Your task to perform on an android device: Open internet settings Image 0: 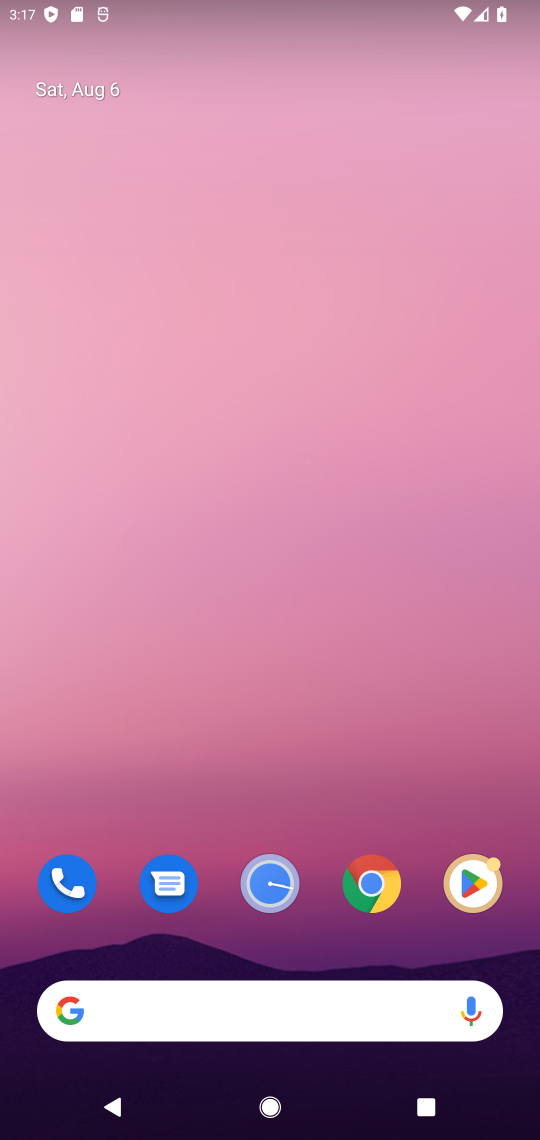
Step 0: drag from (321, 825) to (389, 6)
Your task to perform on an android device: Open internet settings Image 1: 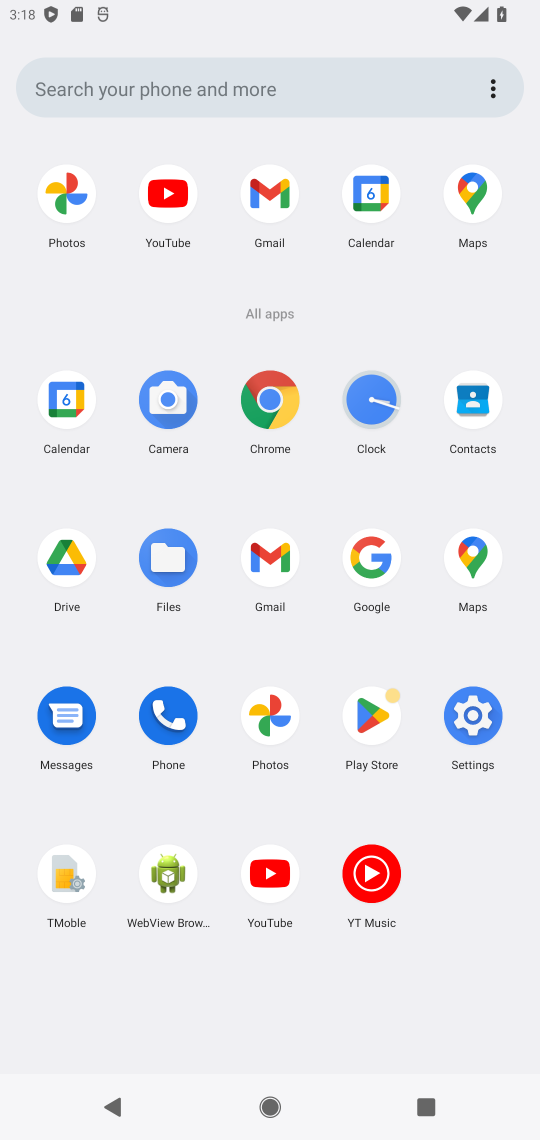
Step 1: click (455, 758)
Your task to perform on an android device: Open internet settings Image 2: 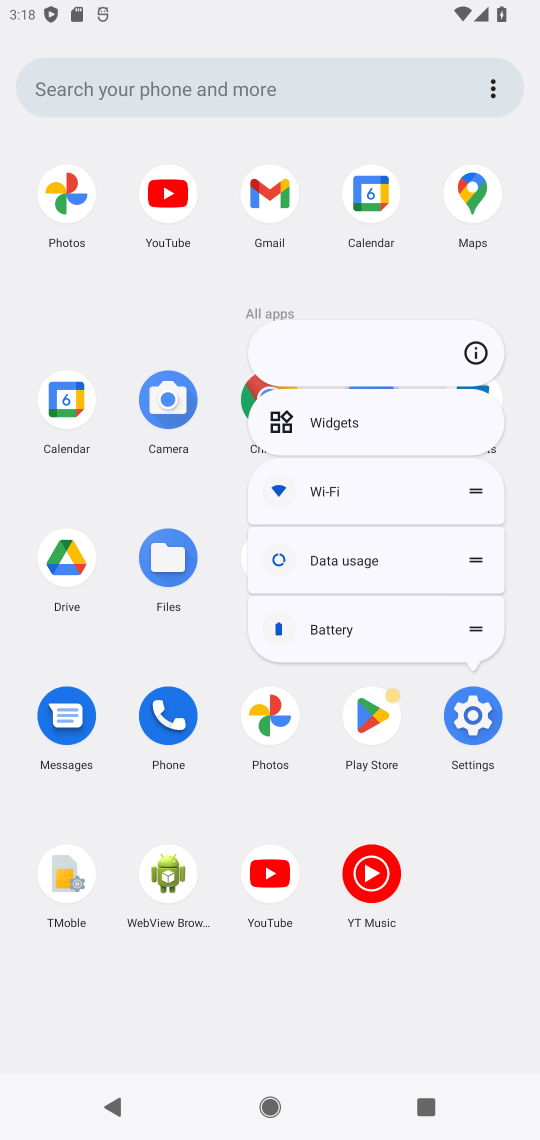
Step 2: click (473, 744)
Your task to perform on an android device: Open internet settings Image 3: 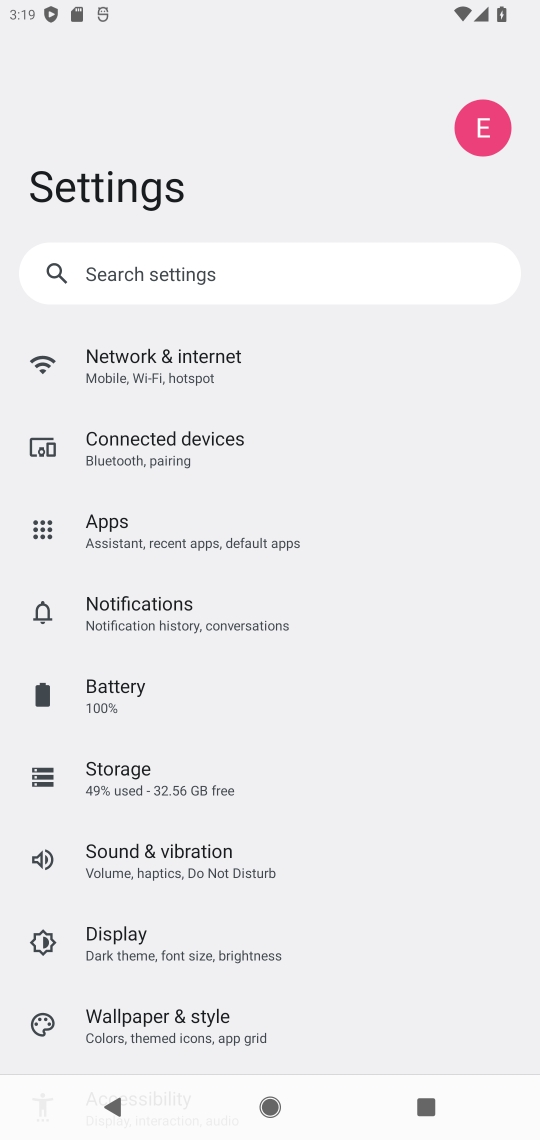
Step 3: click (205, 382)
Your task to perform on an android device: Open internet settings Image 4: 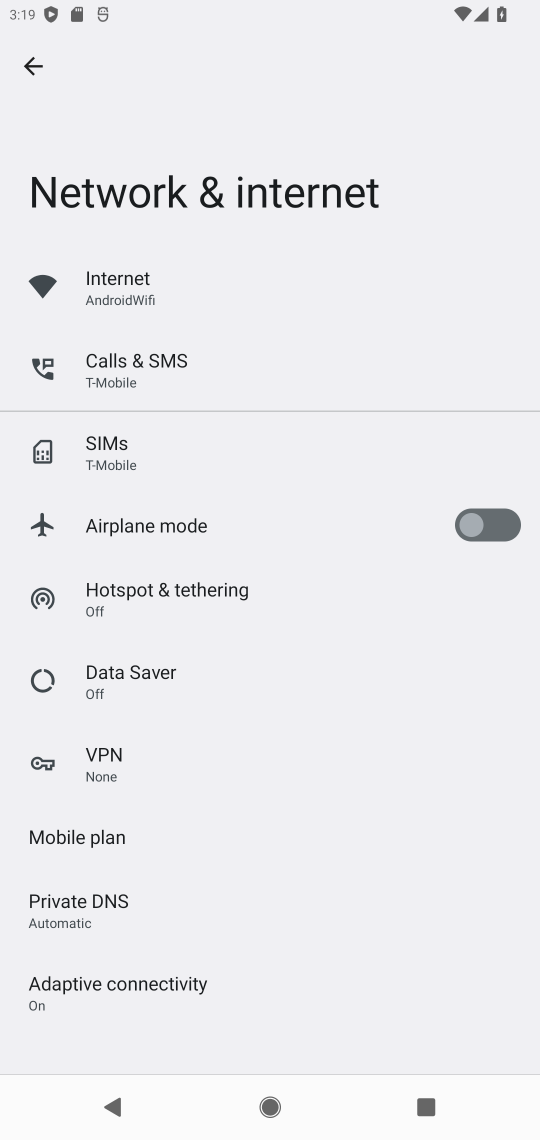
Step 4: click (163, 285)
Your task to perform on an android device: Open internet settings Image 5: 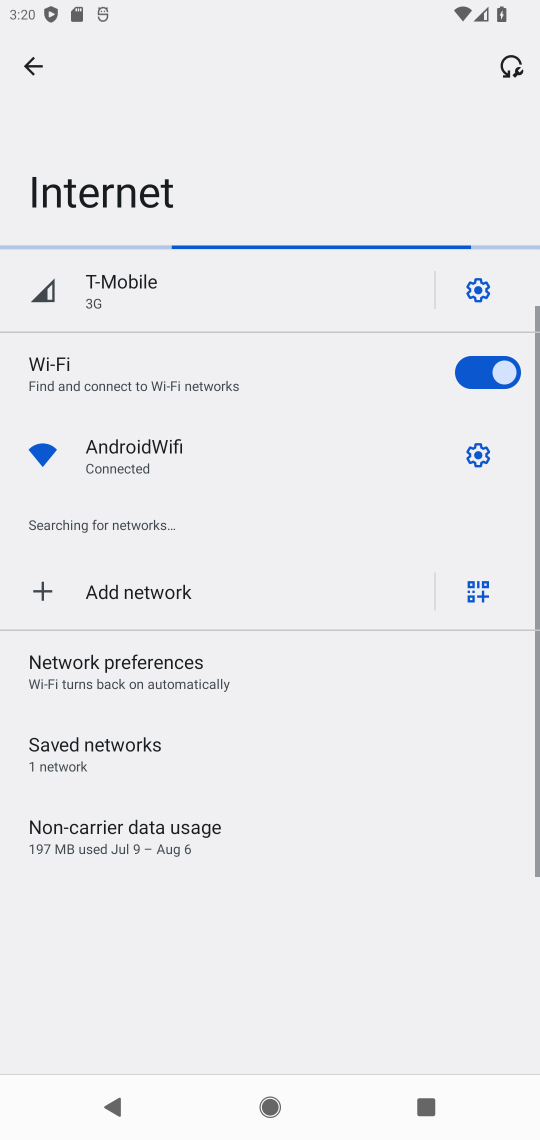
Step 5: task complete